Your task to perform on an android device: toggle location history Image 0: 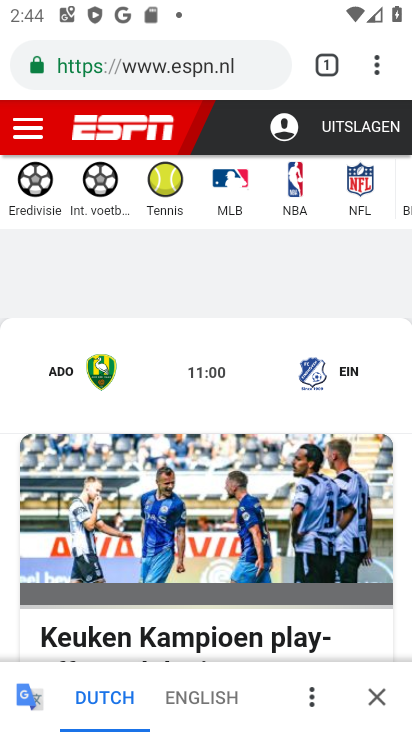
Step 0: drag from (379, 56) to (180, 632)
Your task to perform on an android device: toggle location history Image 1: 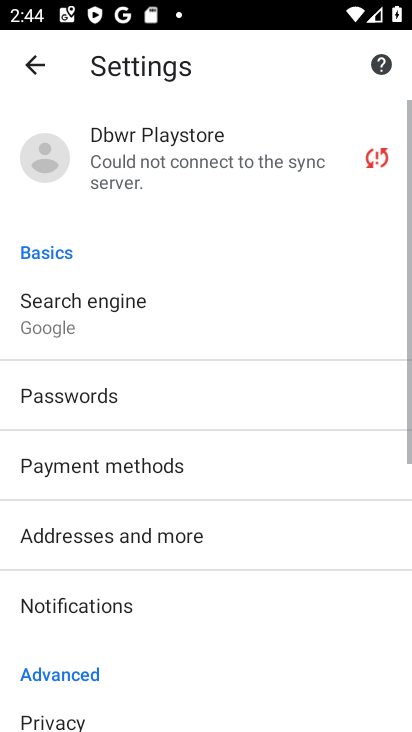
Step 1: drag from (185, 604) to (230, 172)
Your task to perform on an android device: toggle location history Image 2: 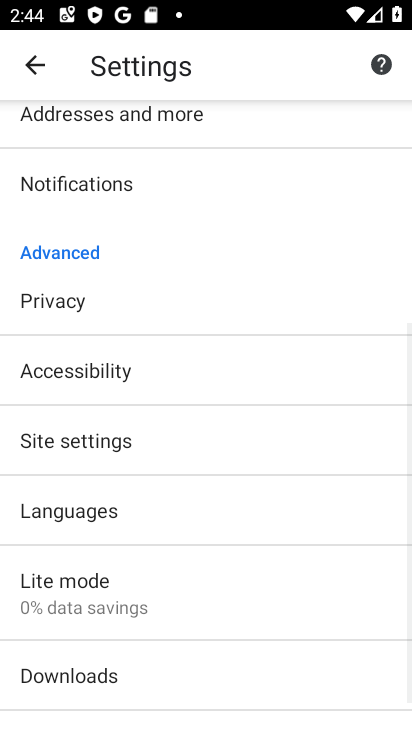
Step 2: click (230, 209)
Your task to perform on an android device: toggle location history Image 3: 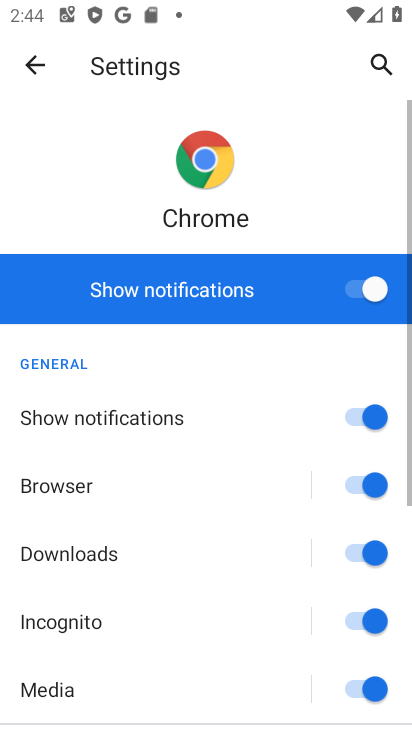
Step 3: drag from (207, 665) to (186, 304)
Your task to perform on an android device: toggle location history Image 4: 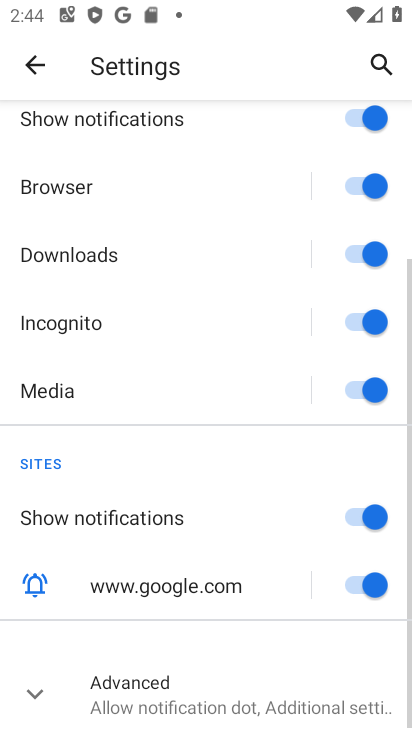
Step 4: click (40, 61)
Your task to perform on an android device: toggle location history Image 5: 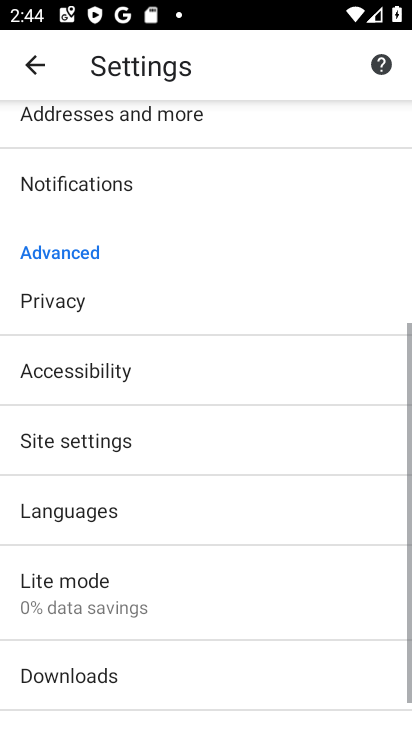
Step 5: drag from (223, 704) to (242, 252)
Your task to perform on an android device: toggle location history Image 6: 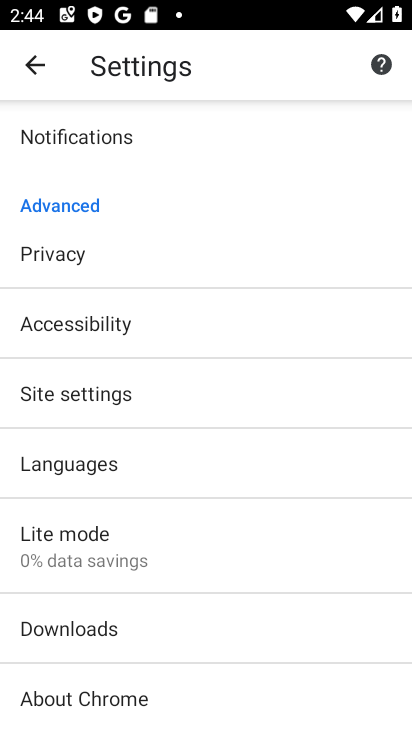
Step 6: click (139, 374)
Your task to perform on an android device: toggle location history Image 7: 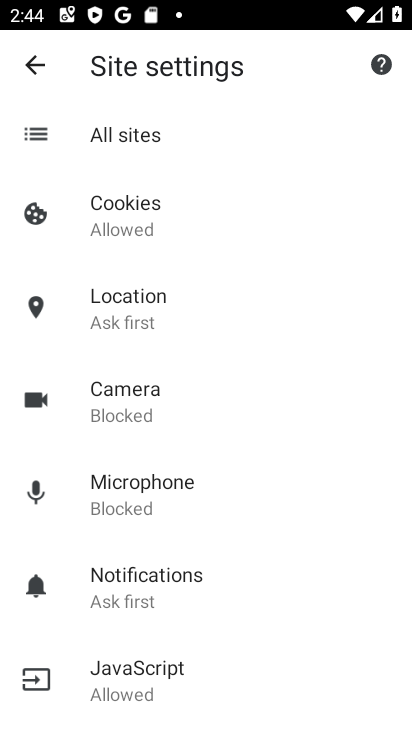
Step 7: click (172, 311)
Your task to perform on an android device: toggle location history Image 8: 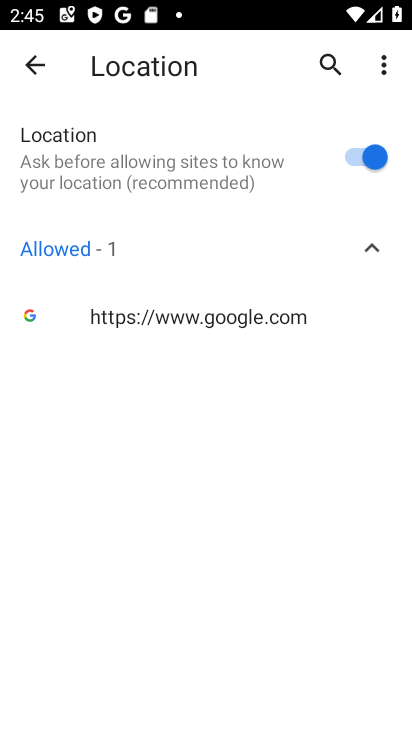
Step 8: click (382, 138)
Your task to perform on an android device: toggle location history Image 9: 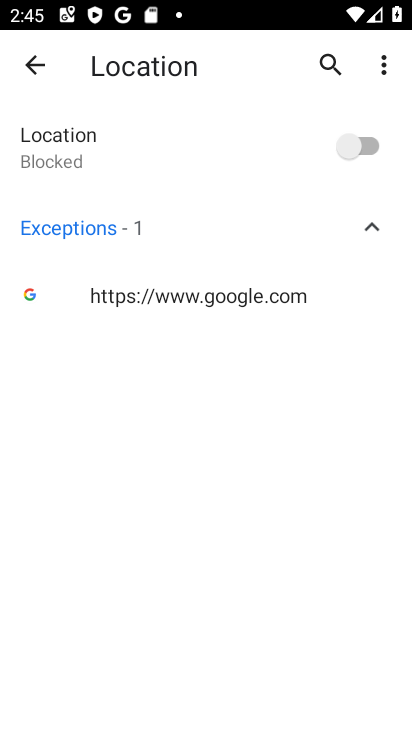
Step 9: task complete